Your task to perform on an android device: turn off location Image 0: 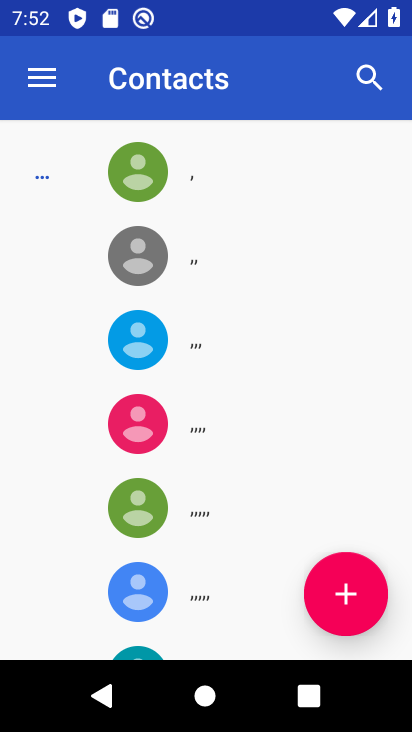
Step 0: press home button
Your task to perform on an android device: turn off location Image 1: 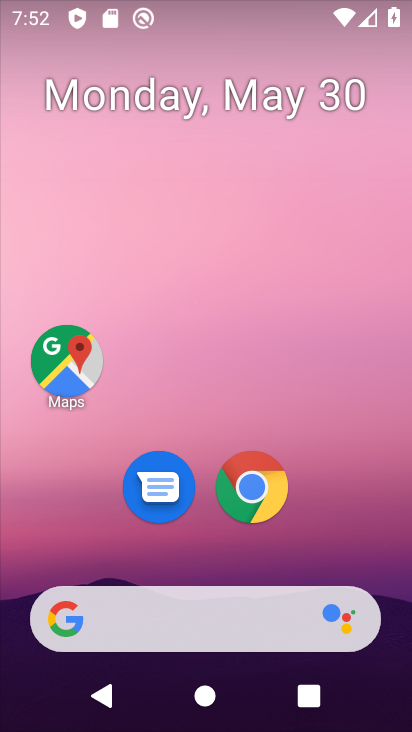
Step 1: drag from (268, 587) to (294, 210)
Your task to perform on an android device: turn off location Image 2: 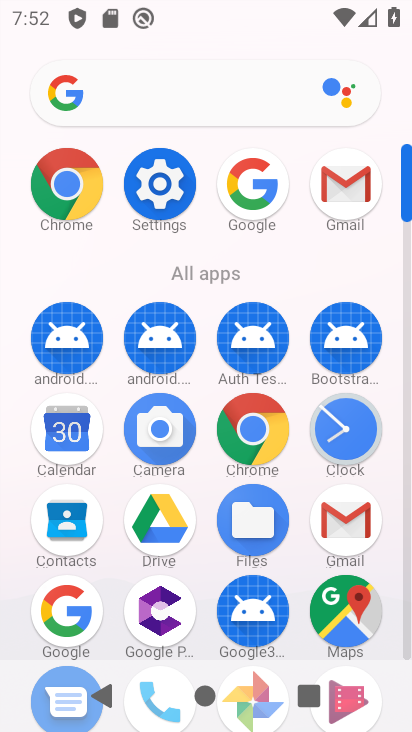
Step 2: click (149, 176)
Your task to perform on an android device: turn off location Image 3: 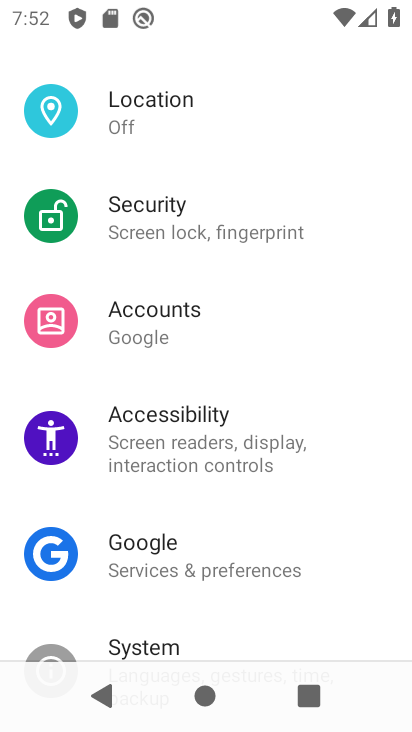
Step 3: click (128, 115)
Your task to perform on an android device: turn off location Image 4: 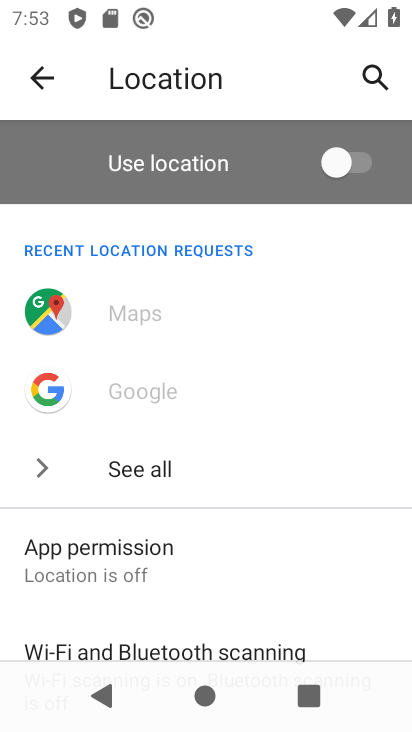
Step 4: task complete